Your task to perform on an android device: Open Google Chrome and click the shortcut for Amazon.com Image 0: 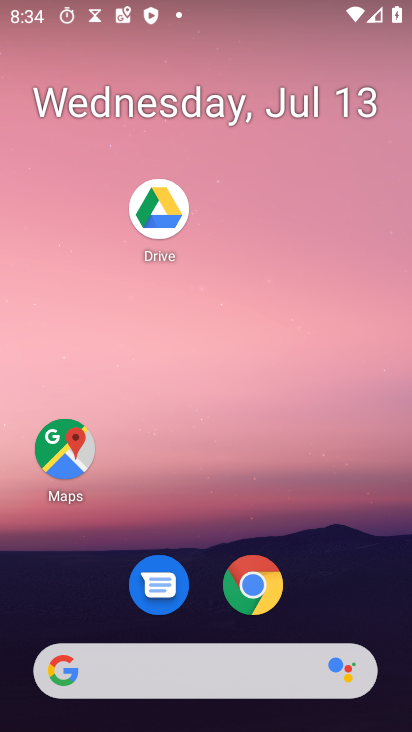
Step 0: click (260, 585)
Your task to perform on an android device: Open Google Chrome and click the shortcut for Amazon.com Image 1: 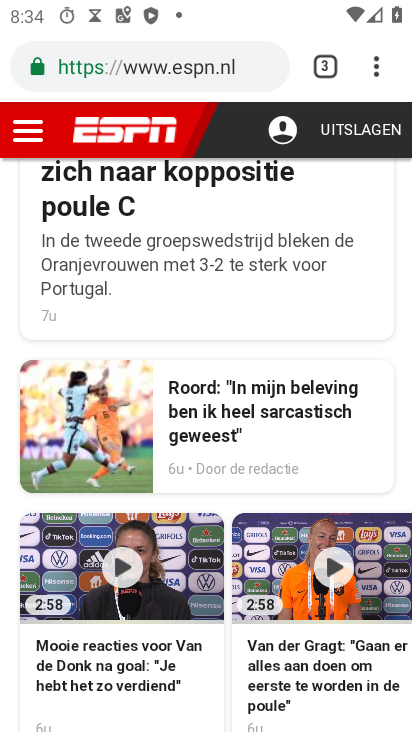
Step 1: drag from (375, 68) to (266, 121)
Your task to perform on an android device: Open Google Chrome and click the shortcut for Amazon.com Image 2: 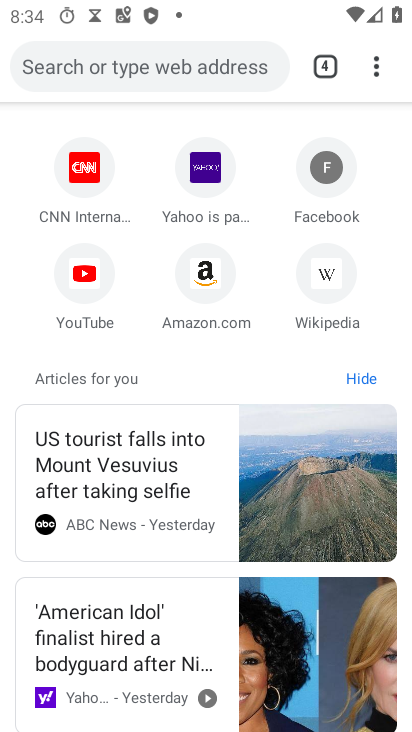
Step 2: click (207, 280)
Your task to perform on an android device: Open Google Chrome and click the shortcut for Amazon.com Image 3: 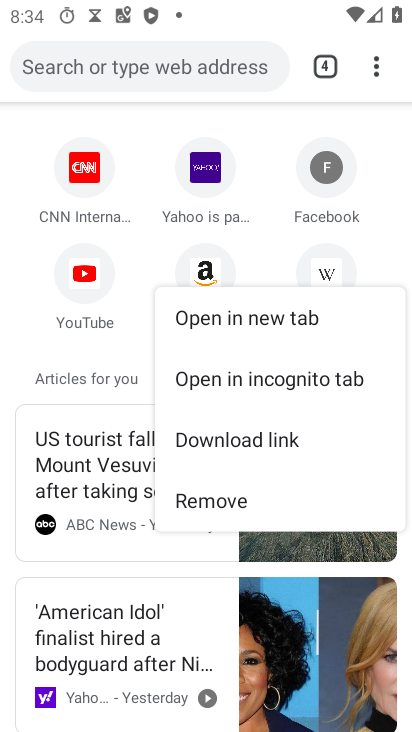
Step 3: click (207, 279)
Your task to perform on an android device: Open Google Chrome and click the shortcut for Amazon.com Image 4: 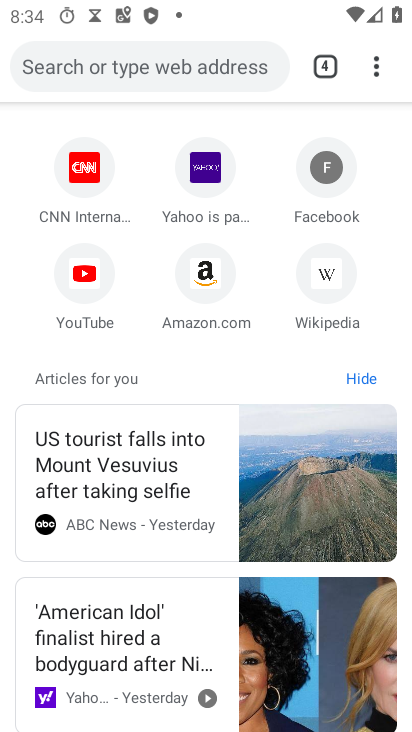
Step 4: click (202, 278)
Your task to perform on an android device: Open Google Chrome and click the shortcut for Amazon.com Image 5: 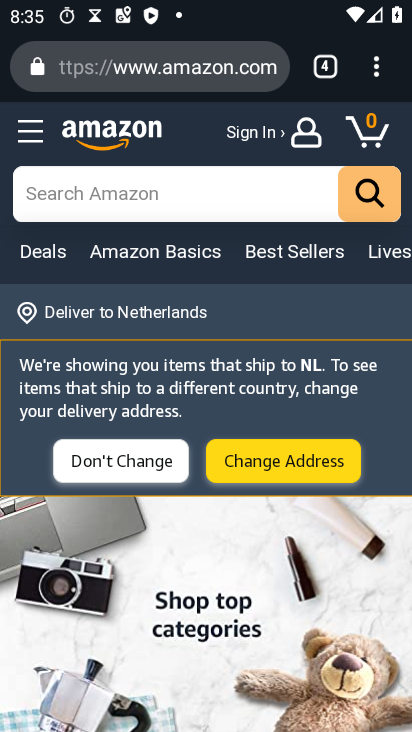
Step 5: task complete